Your task to perform on an android device: choose inbox layout in the gmail app Image 0: 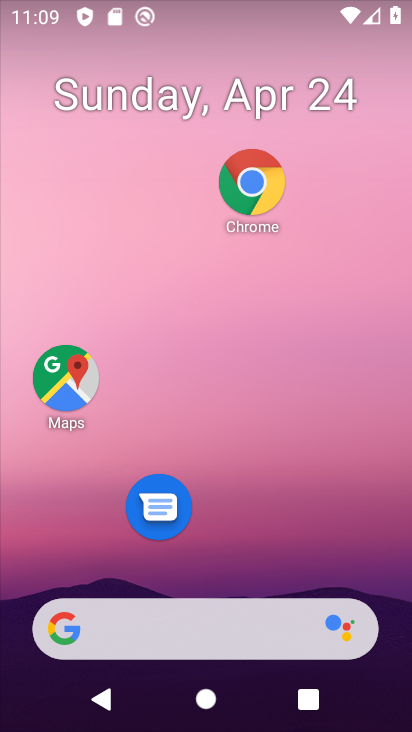
Step 0: click (226, 200)
Your task to perform on an android device: choose inbox layout in the gmail app Image 1: 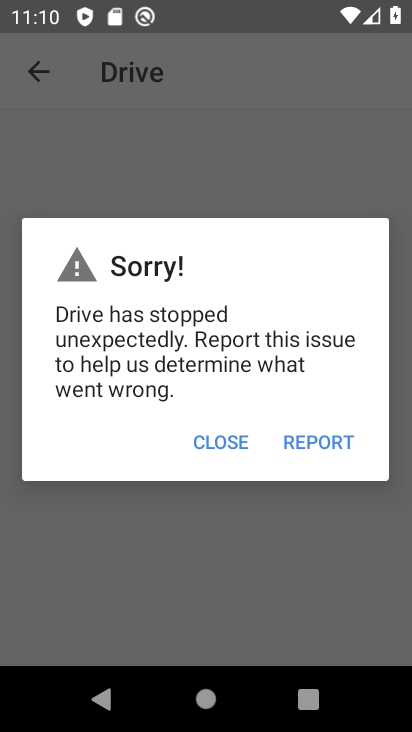
Step 1: press home button
Your task to perform on an android device: choose inbox layout in the gmail app Image 2: 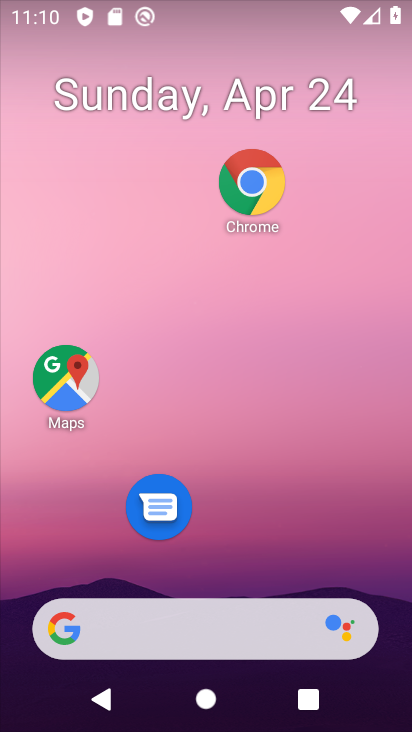
Step 2: drag from (227, 724) to (227, 156)
Your task to perform on an android device: choose inbox layout in the gmail app Image 3: 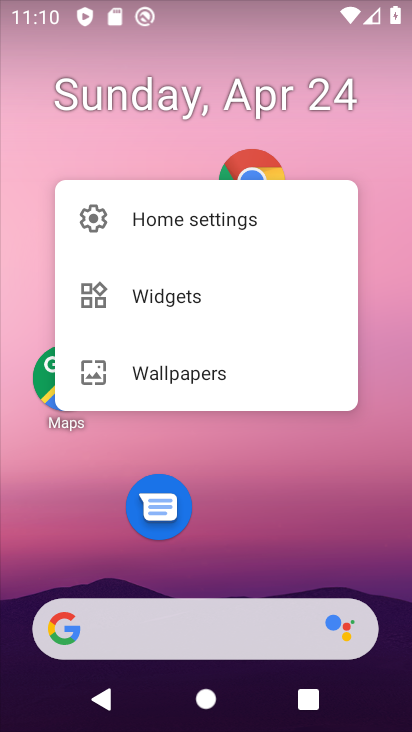
Step 3: click (252, 527)
Your task to perform on an android device: choose inbox layout in the gmail app Image 4: 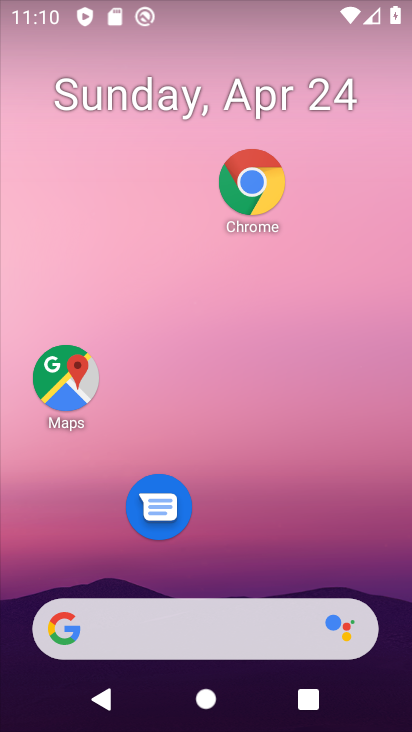
Step 4: drag from (215, 715) to (209, 196)
Your task to perform on an android device: choose inbox layout in the gmail app Image 5: 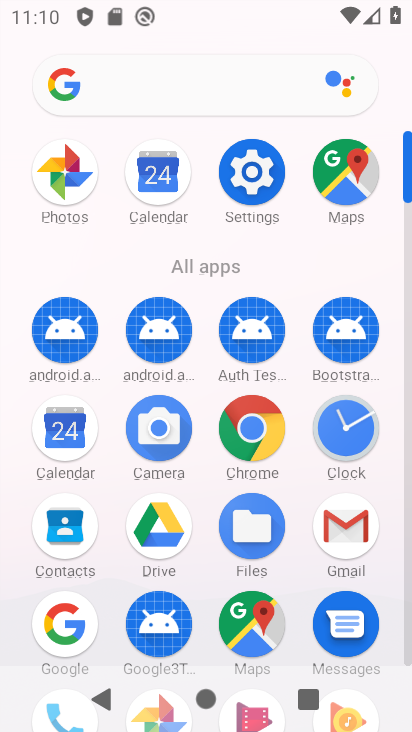
Step 5: click (345, 526)
Your task to perform on an android device: choose inbox layout in the gmail app Image 6: 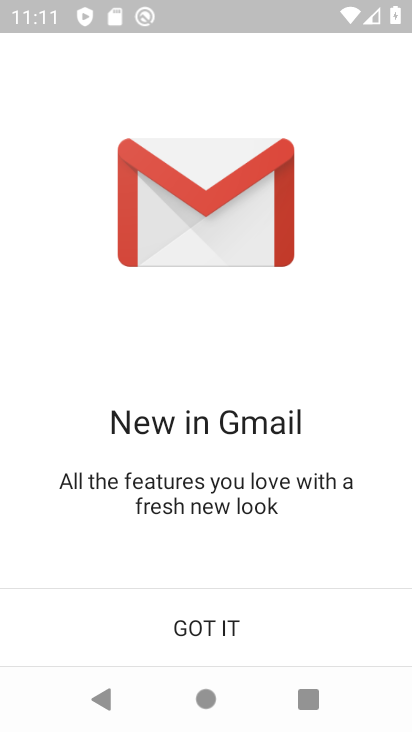
Step 6: click (214, 627)
Your task to perform on an android device: choose inbox layout in the gmail app Image 7: 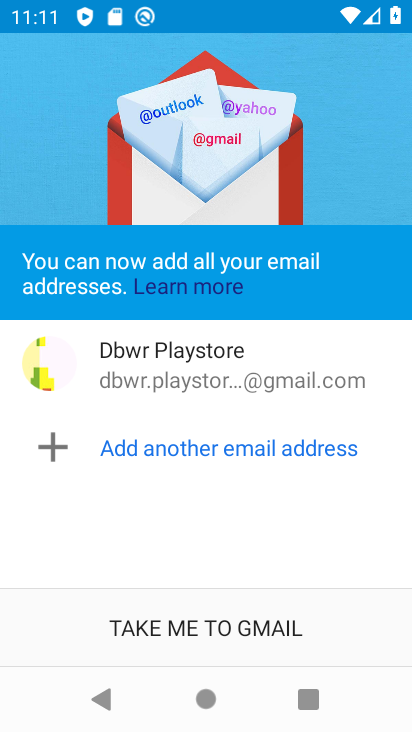
Step 7: click (214, 627)
Your task to perform on an android device: choose inbox layout in the gmail app Image 8: 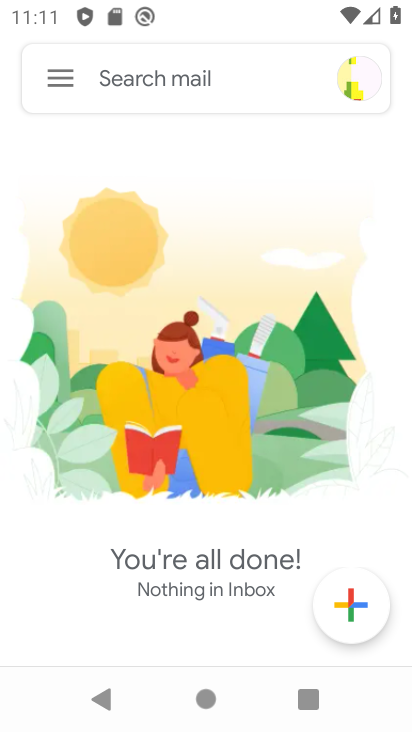
Step 8: click (59, 81)
Your task to perform on an android device: choose inbox layout in the gmail app Image 9: 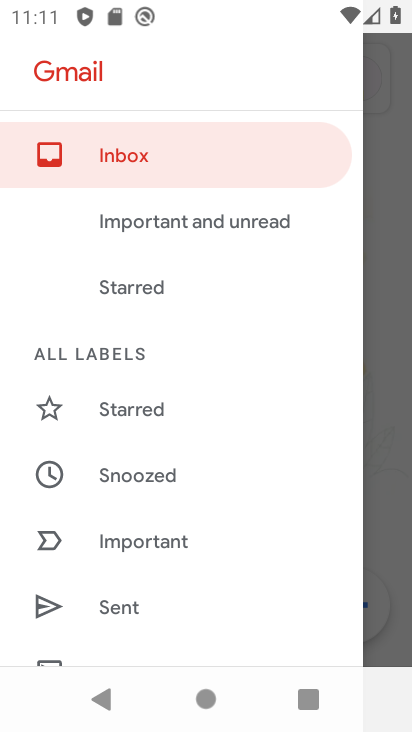
Step 9: drag from (161, 640) to (185, 124)
Your task to perform on an android device: choose inbox layout in the gmail app Image 10: 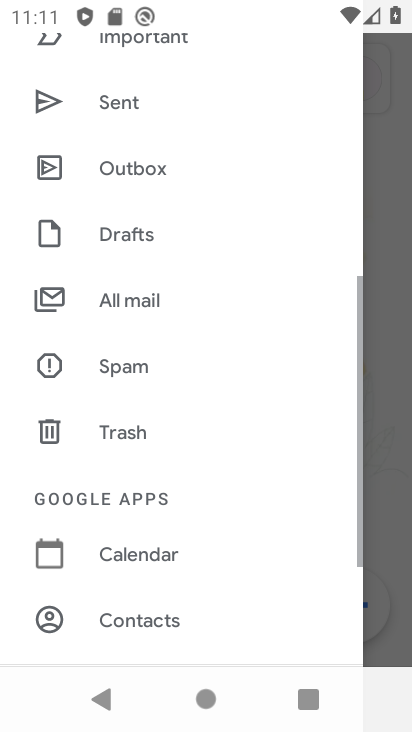
Step 10: drag from (183, 623) to (188, 58)
Your task to perform on an android device: choose inbox layout in the gmail app Image 11: 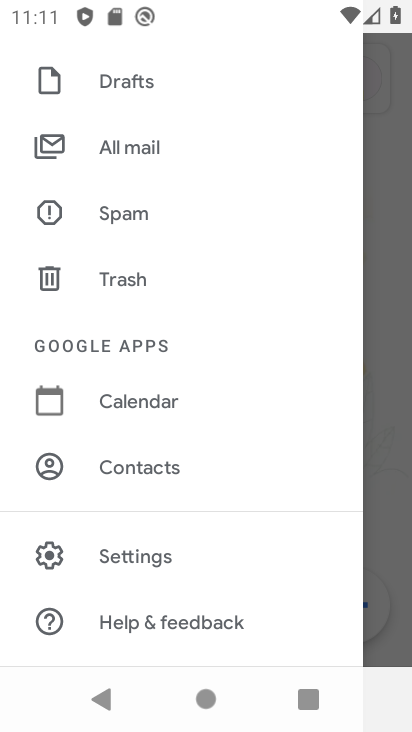
Step 11: click (142, 554)
Your task to perform on an android device: choose inbox layout in the gmail app Image 12: 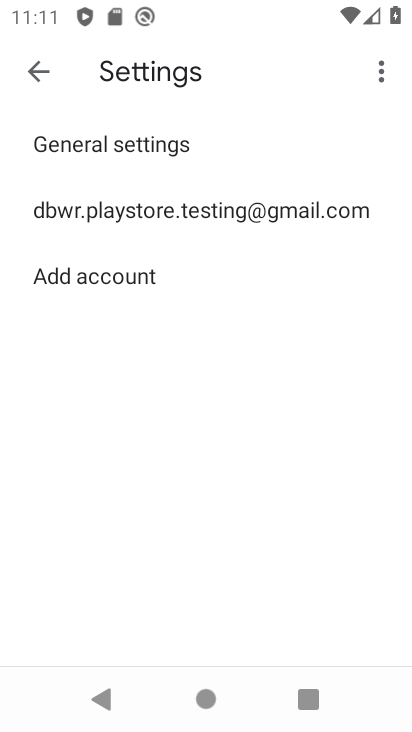
Step 12: click (181, 210)
Your task to perform on an android device: choose inbox layout in the gmail app Image 13: 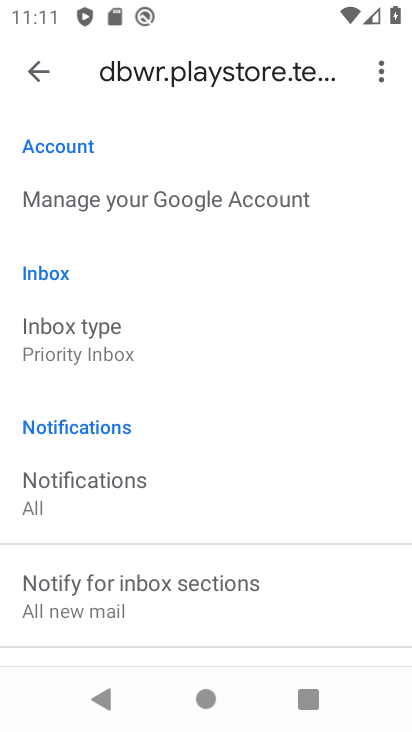
Step 13: click (83, 349)
Your task to perform on an android device: choose inbox layout in the gmail app Image 14: 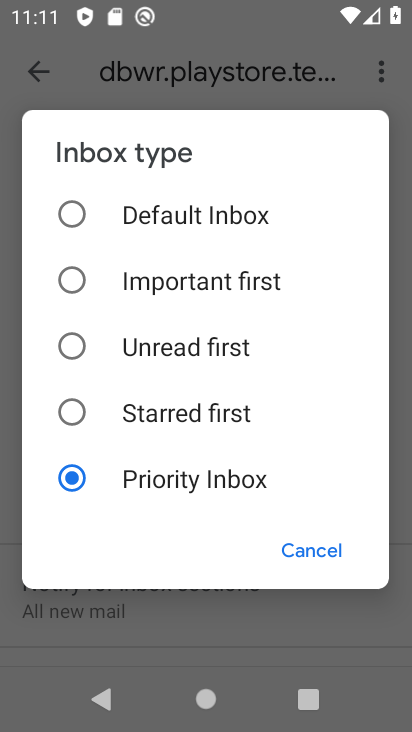
Step 14: click (70, 214)
Your task to perform on an android device: choose inbox layout in the gmail app Image 15: 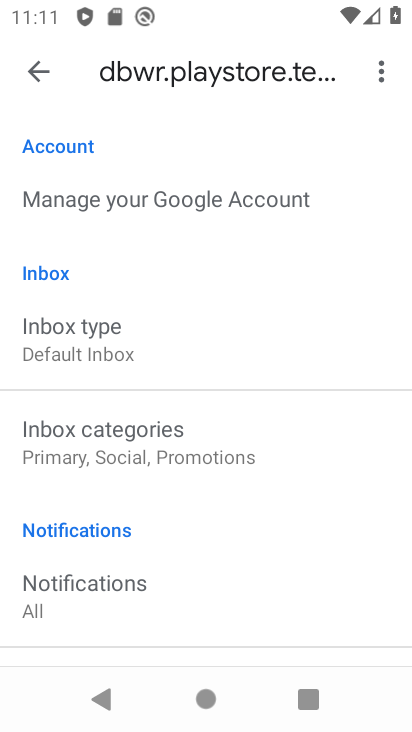
Step 15: task complete